Your task to perform on an android device: allow cookies in the chrome app Image 0: 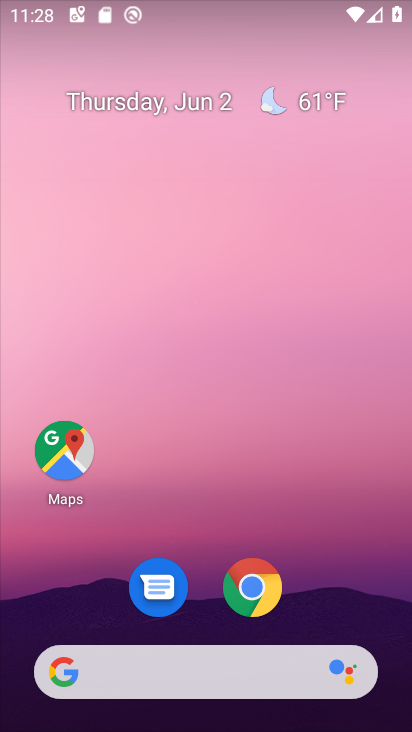
Step 0: click (262, 572)
Your task to perform on an android device: allow cookies in the chrome app Image 1: 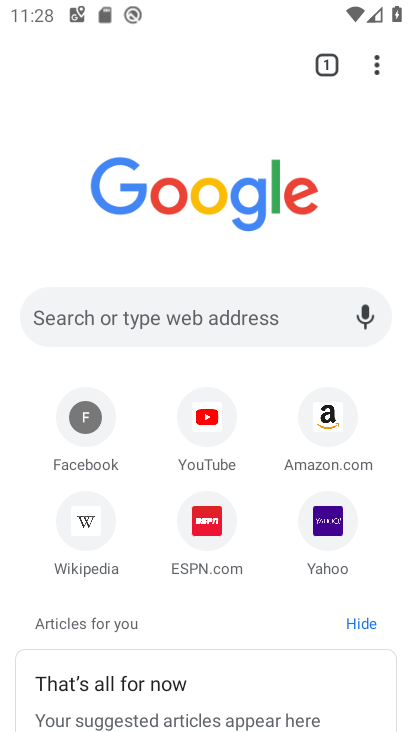
Step 1: click (375, 62)
Your task to perform on an android device: allow cookies in the chrome app Image 2: 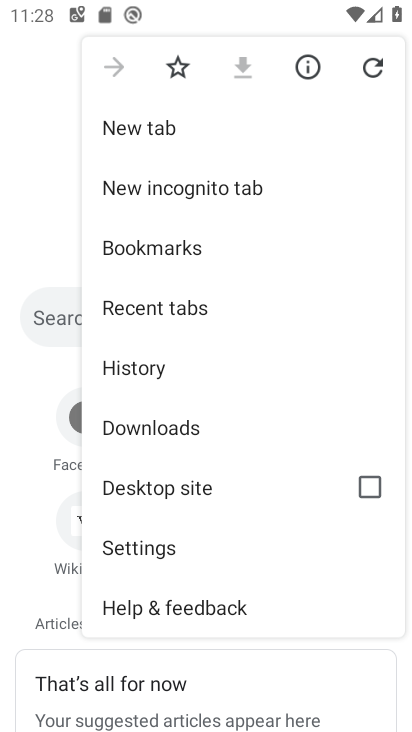
Step 2: click (188, 547)
Your task to perform on an android device: allow cookies in the chrome app Image 3: 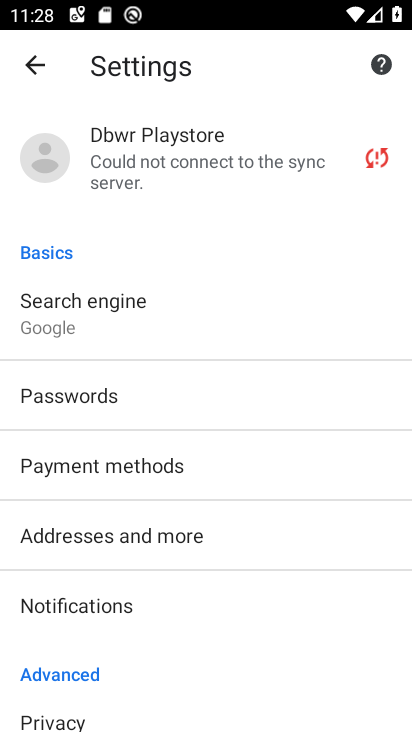
Step 3: drag from (217, 587) to (212, 213)
Your task to perform on an android device: allow cookies in the chrome app Image 4: 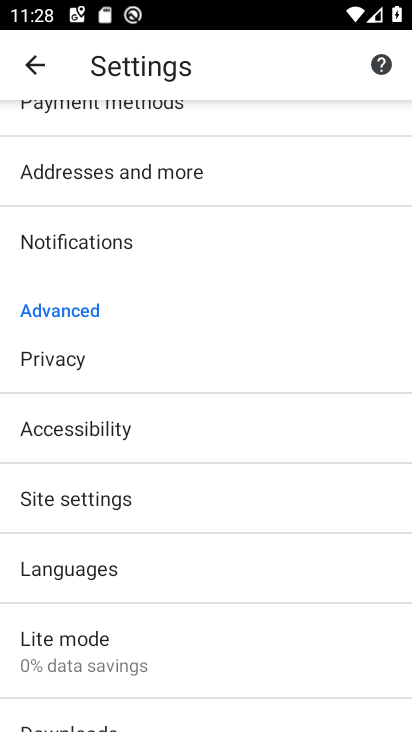
Step 4: click (191, 501)
Your task to perform on an android device: allow cookies in the chrome app Image 5: 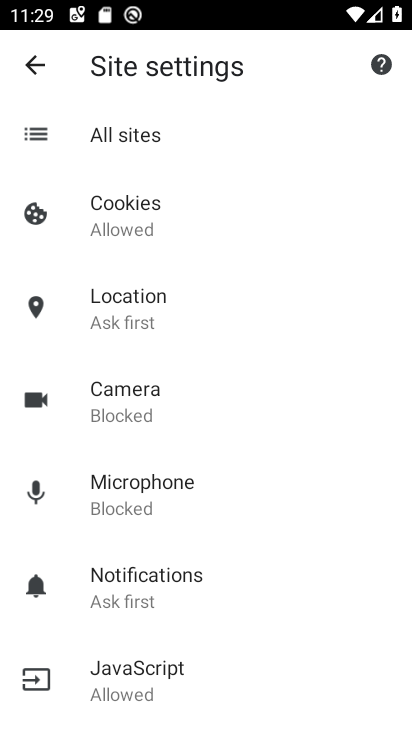
Step 5: task complete